Your task to perform on an android device: Add amazon basics triple a to the cart on bestbuy.com, then select checkout. Image 0: 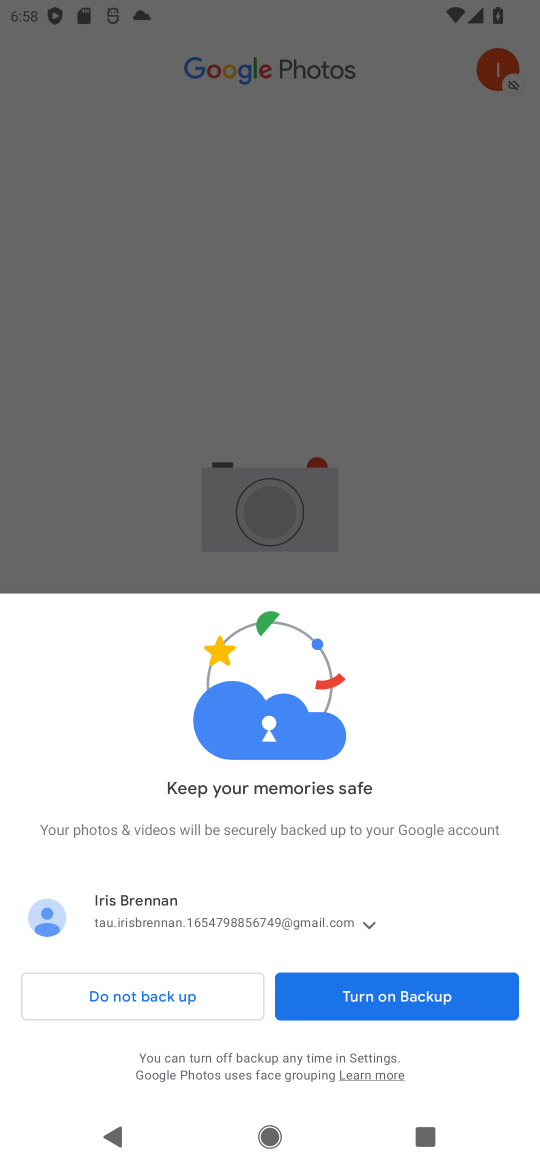
Step 0: press home button
Your task to perform on an android device: Add amazon basics triple a to the cart on bestbuy.com, then select checkout. Image 1: 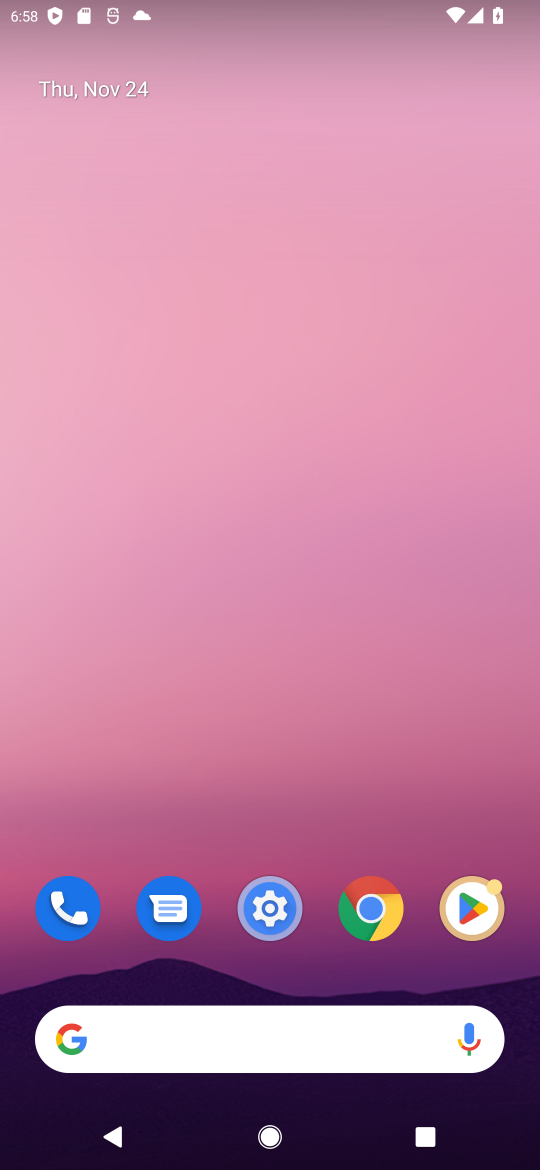
Step 1: click (339, 1012)
Your task to perform on an android device: Add amazon basics triple a to the cart on bestbuy.com, then select checkout. Image 2: 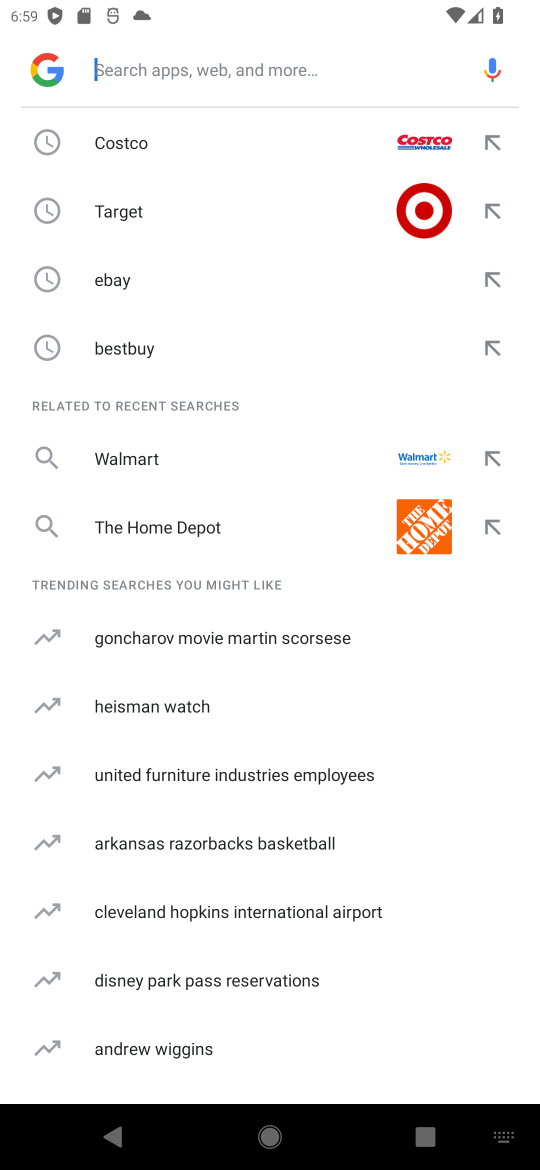
Step 2: click (112, 371)
Your task to perform on an android device: Add amazon basics triple a to the cart on bestbuy.com, then select checkout. Image 3: 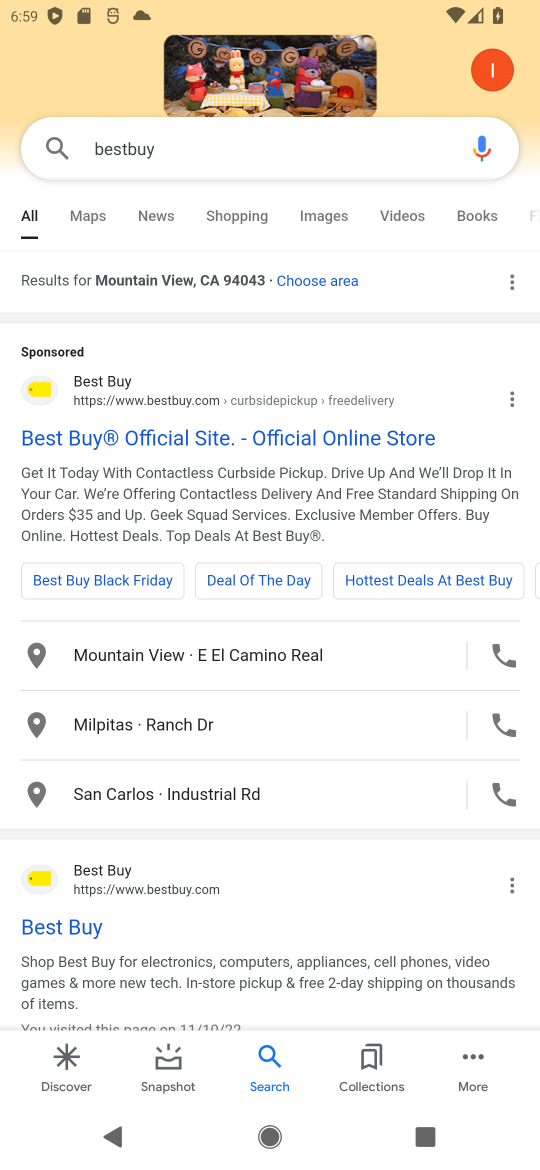
Step 3: click (110, 434)
Your task to perform on an android device: Add amazon basics triple a to the cart on bestbuy.com, then select checkout. Image 4: 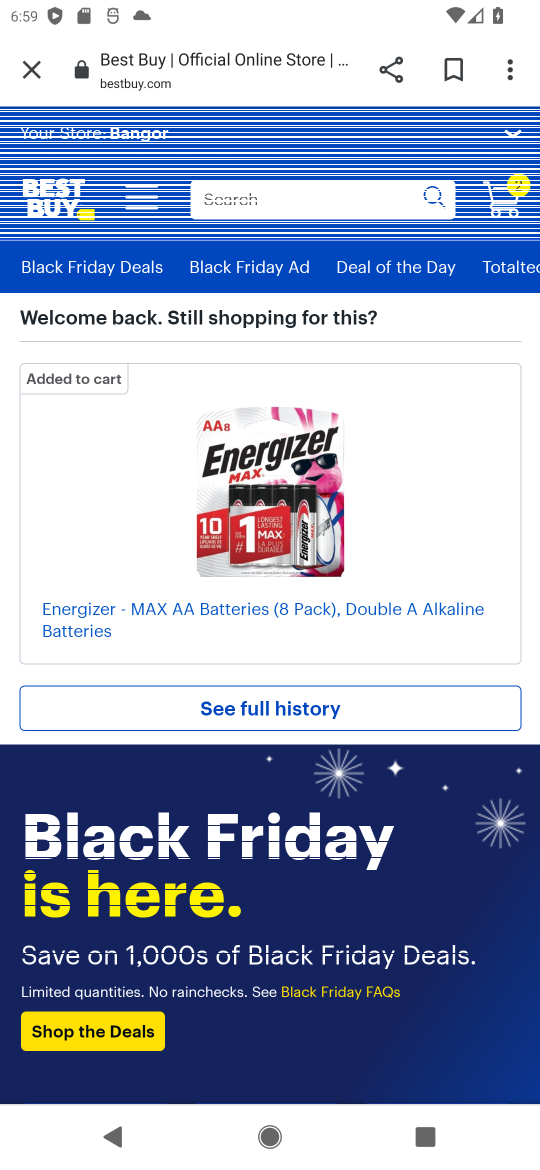
Step 4: click (344, 212)
Your task to perform on an android device: Add amazon basics triple a to the cart on bestbuy.com, then select checkout. Image 5: 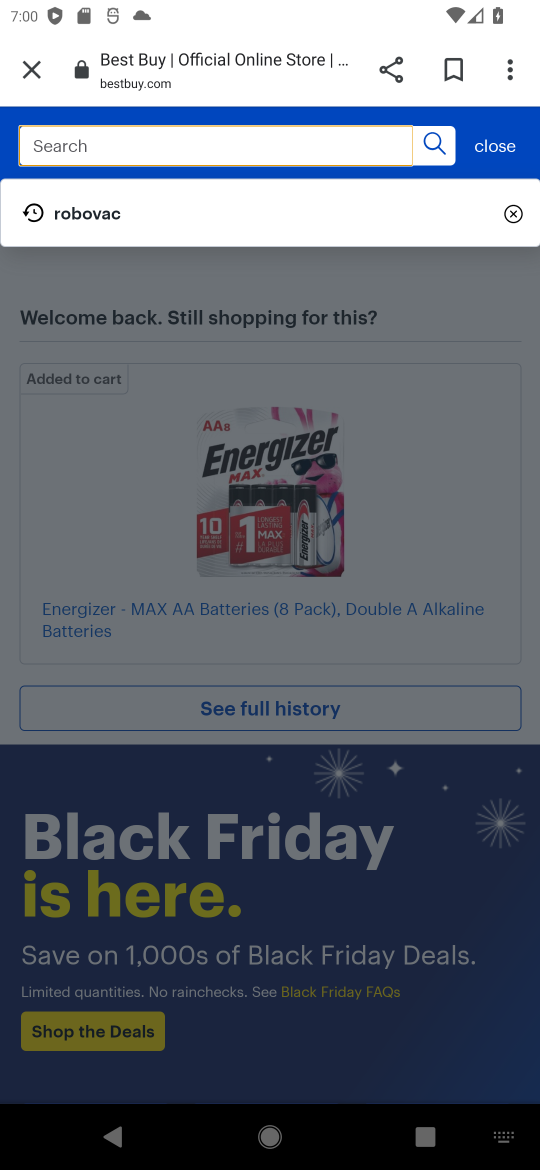
Step 5: type "amazon basic triple"
Your task to perform on an android device: Add amazon basics triple a to the cart on bestbuy.com, then select checkout. Image 6: 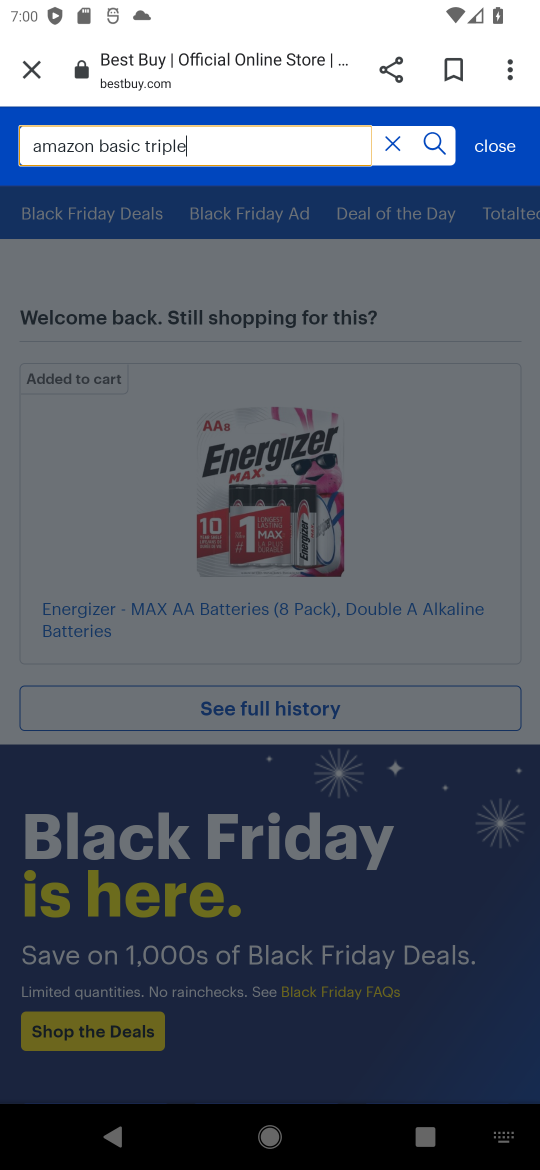
Step 6: click (444, 149)
Your task to perform on an android device: Add amazon basics triple a to the cart on bestbuy.com, then select checkout. Image 7: 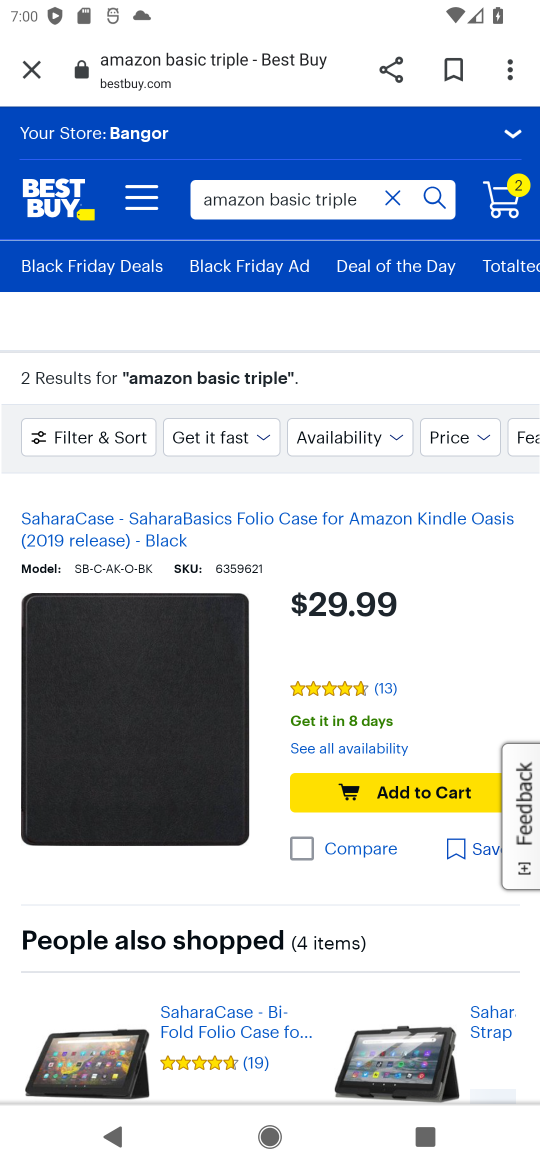
Step 7: click (388, 783)
Your task to perform on an android device: Add amazon basics triple a to the cart on bestbuy.com, then select checkout. Image 8: 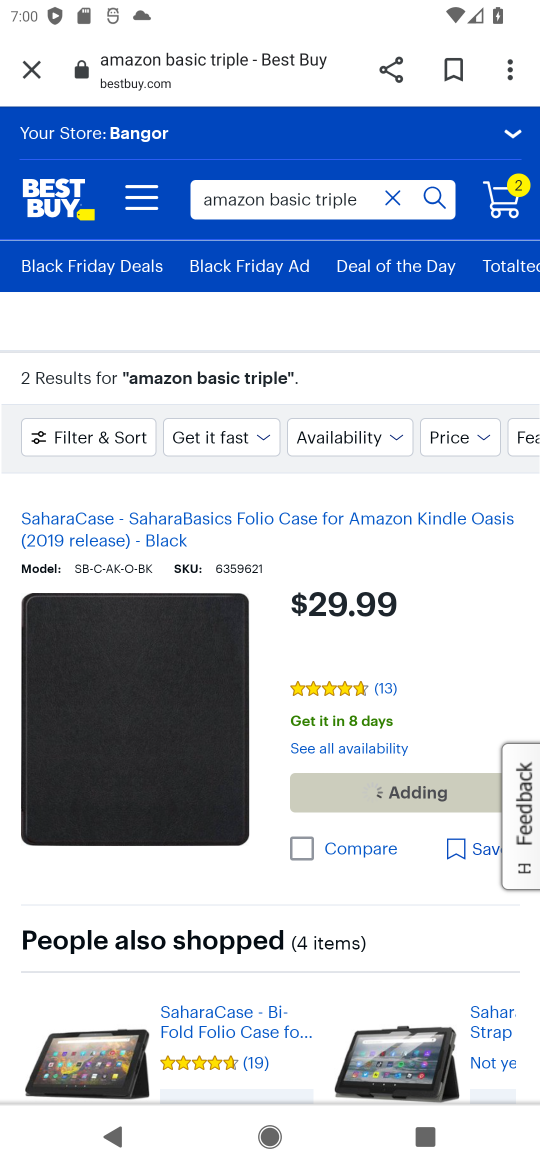
Step 8: task complete